Your task to perform on an android device: install app "Reddit" Image 0: 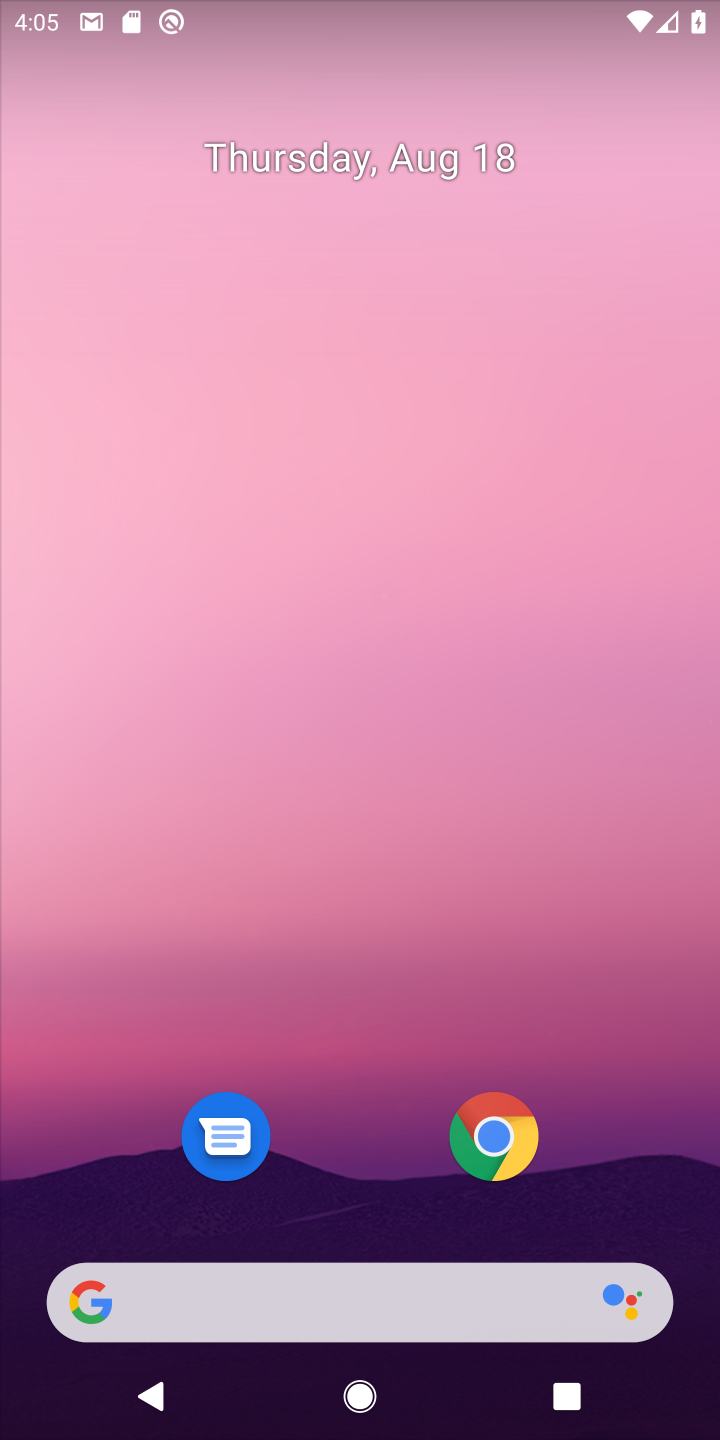
Step 0: drag from (363, 781) to (664, 1)
Your task to perform on an android device: install app "Reddit" Image 1: 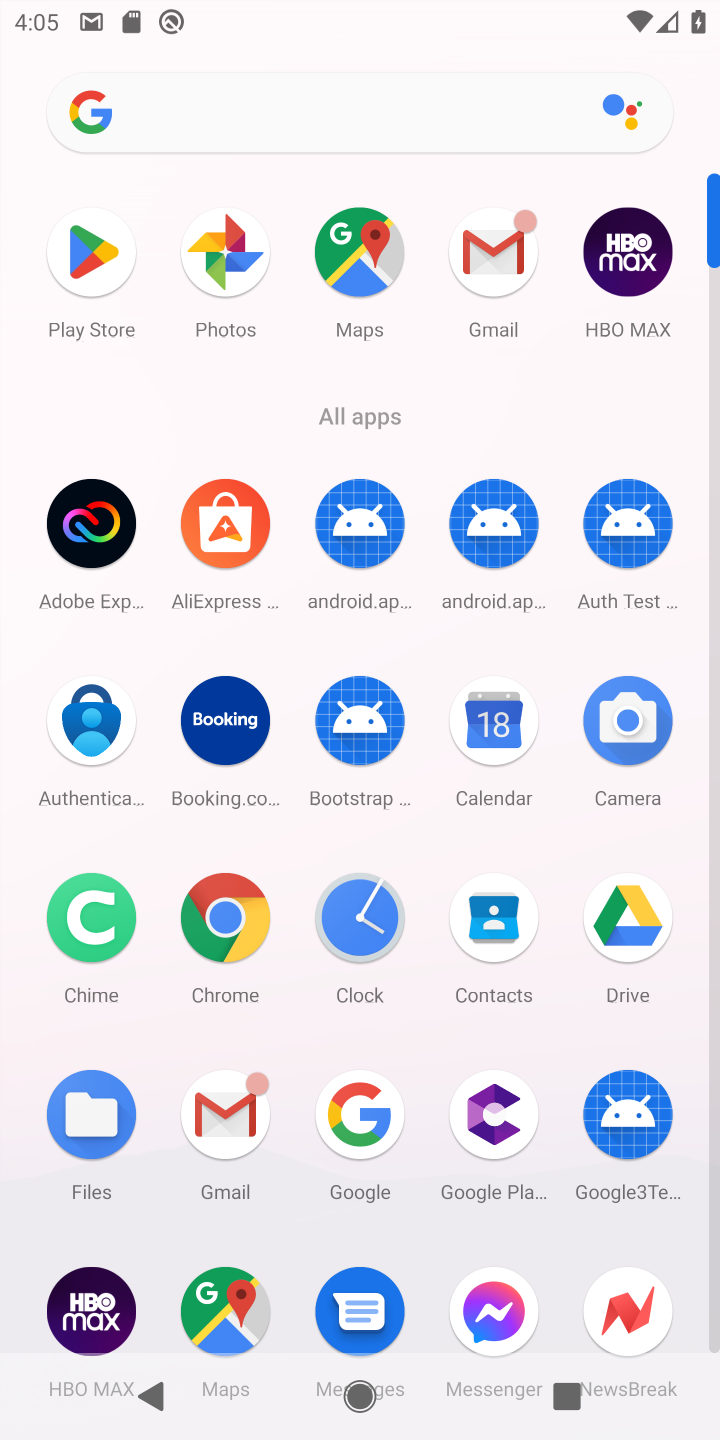
Step 1: click (85, 266)
Your task to perform on an android device: install app "Reddit" Image 2: 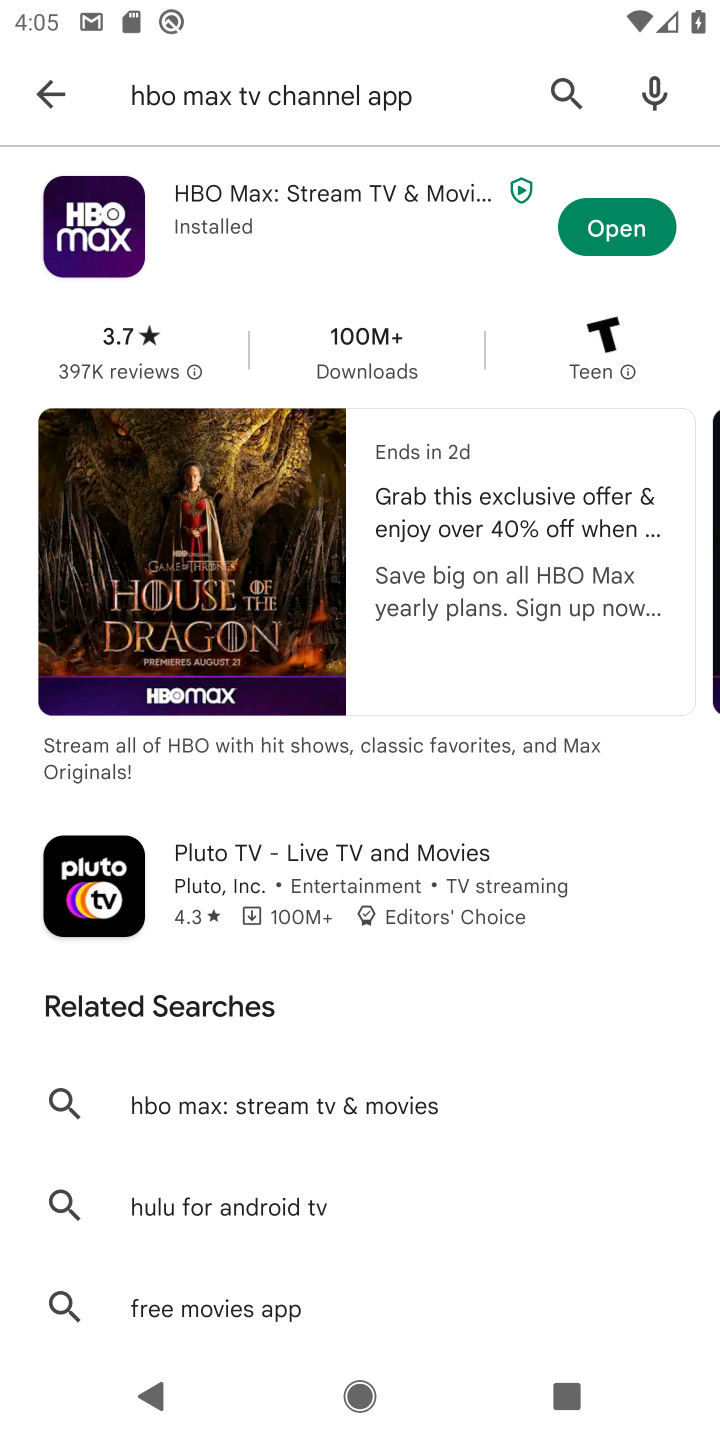
Step 2: click (218, 91)
Your task to perform on an android device: install app "Reddit" Image 3: 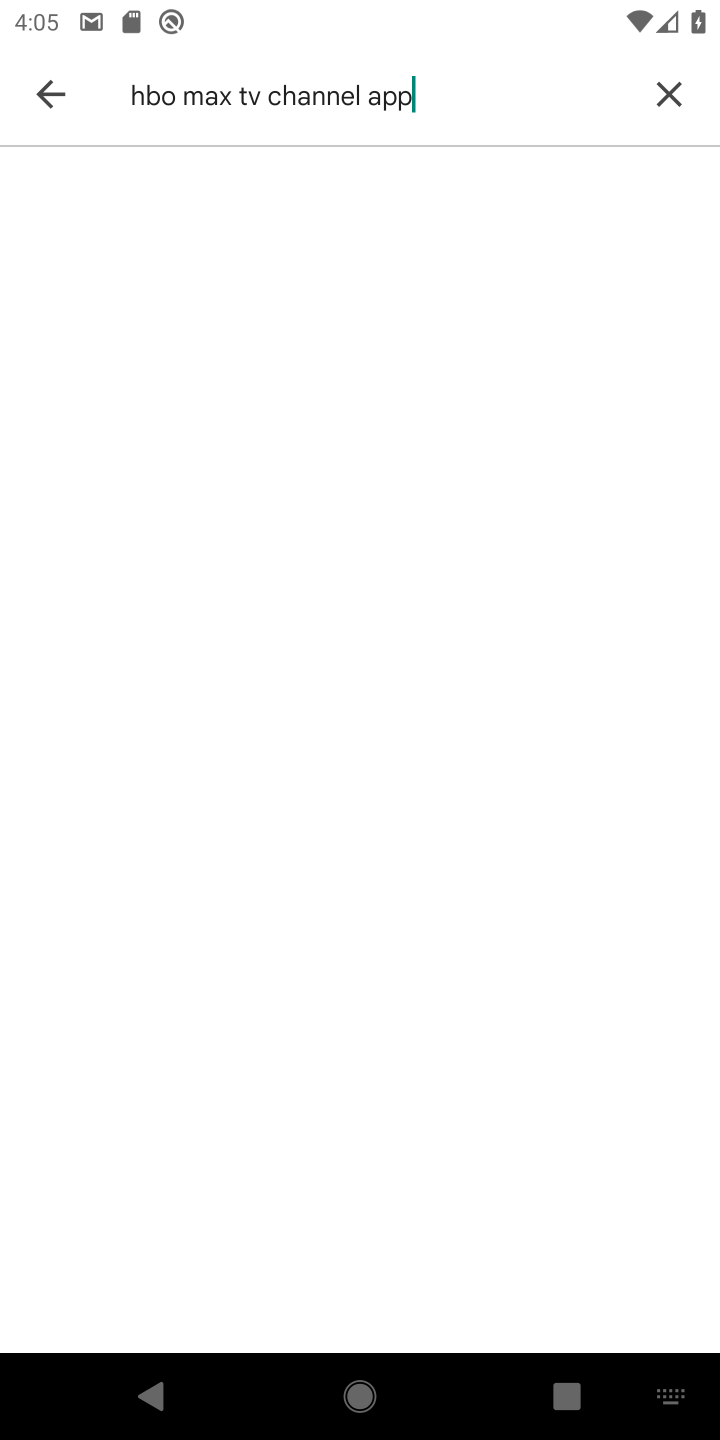
Step 3: click (666, 83)
Your task to perform on an android device: install app "Reddit" Image 4: 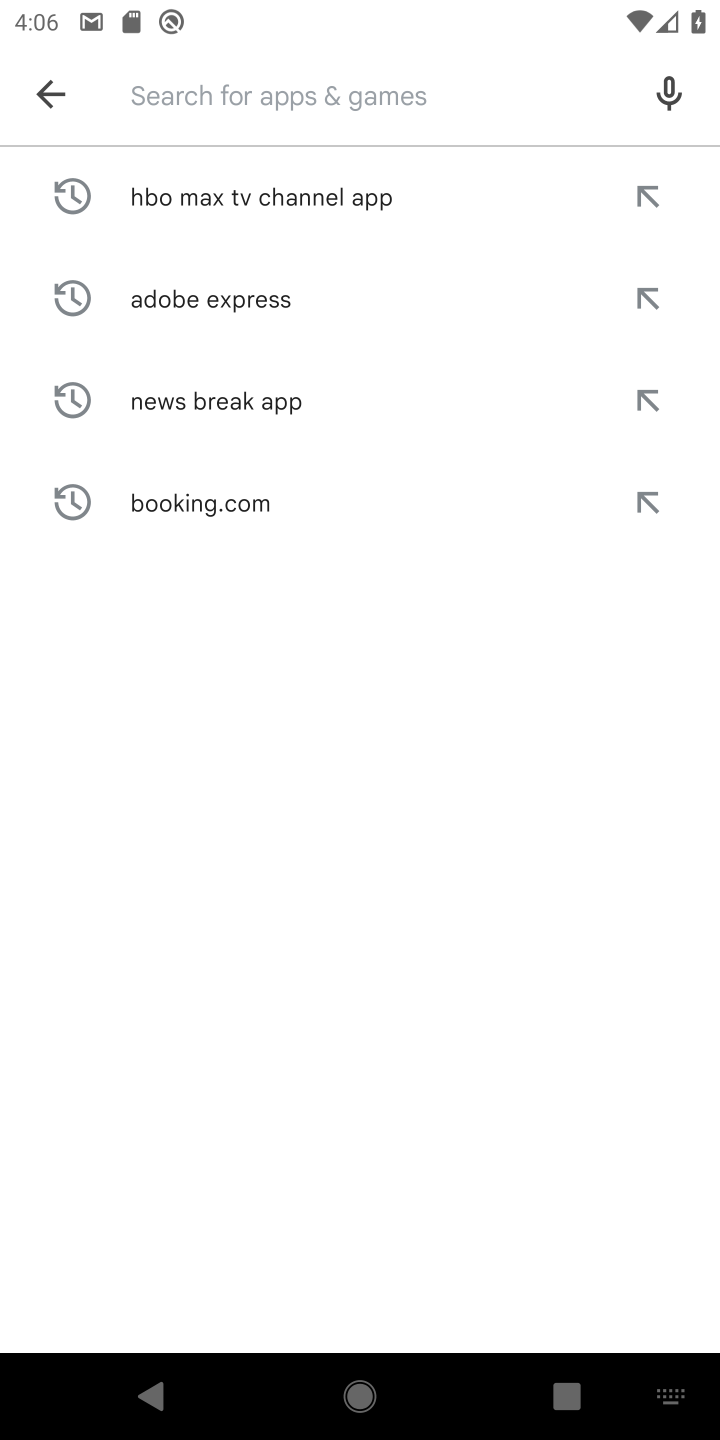
Step 4: type "Reddit"
Your task to perform on an android device: install app "Reddit" Image 5: 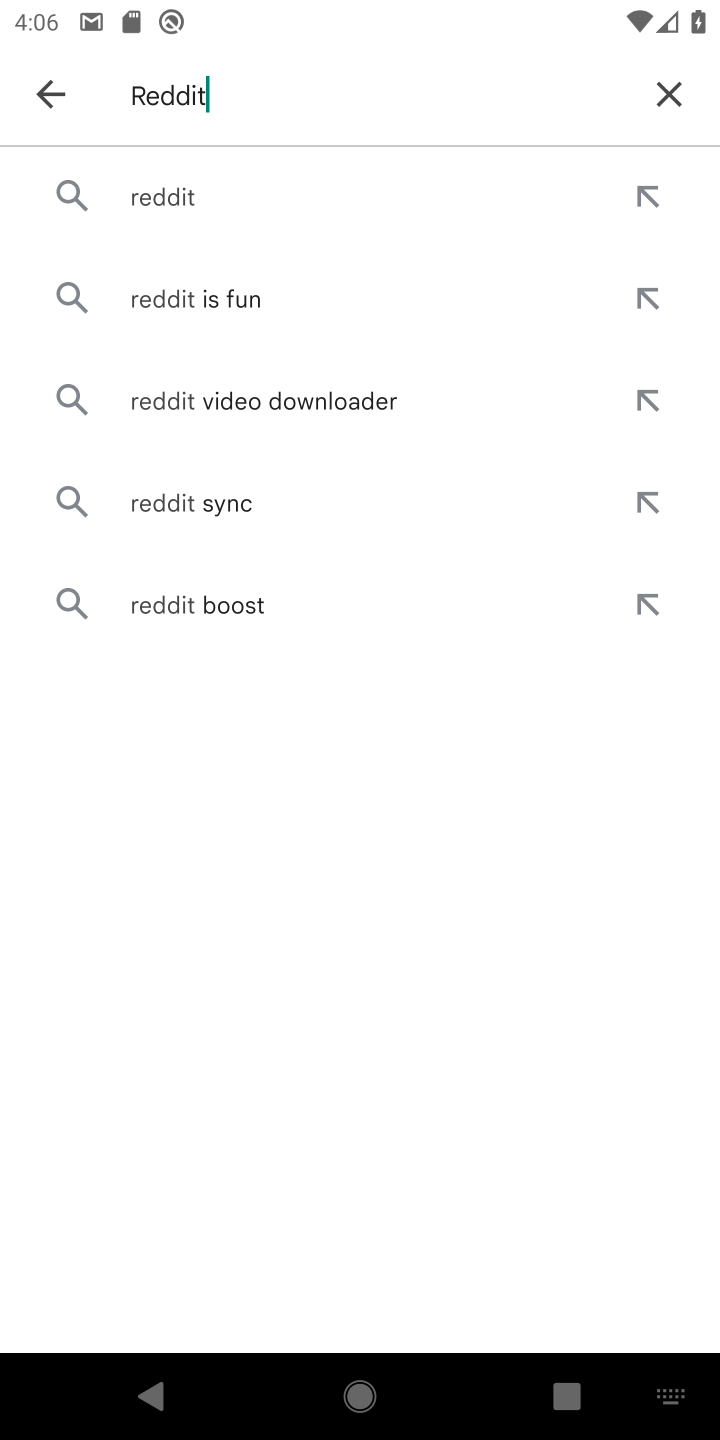
Step 5: click (184, 188)
Your task to perform on an android device: install app "Reddit" Image 6: 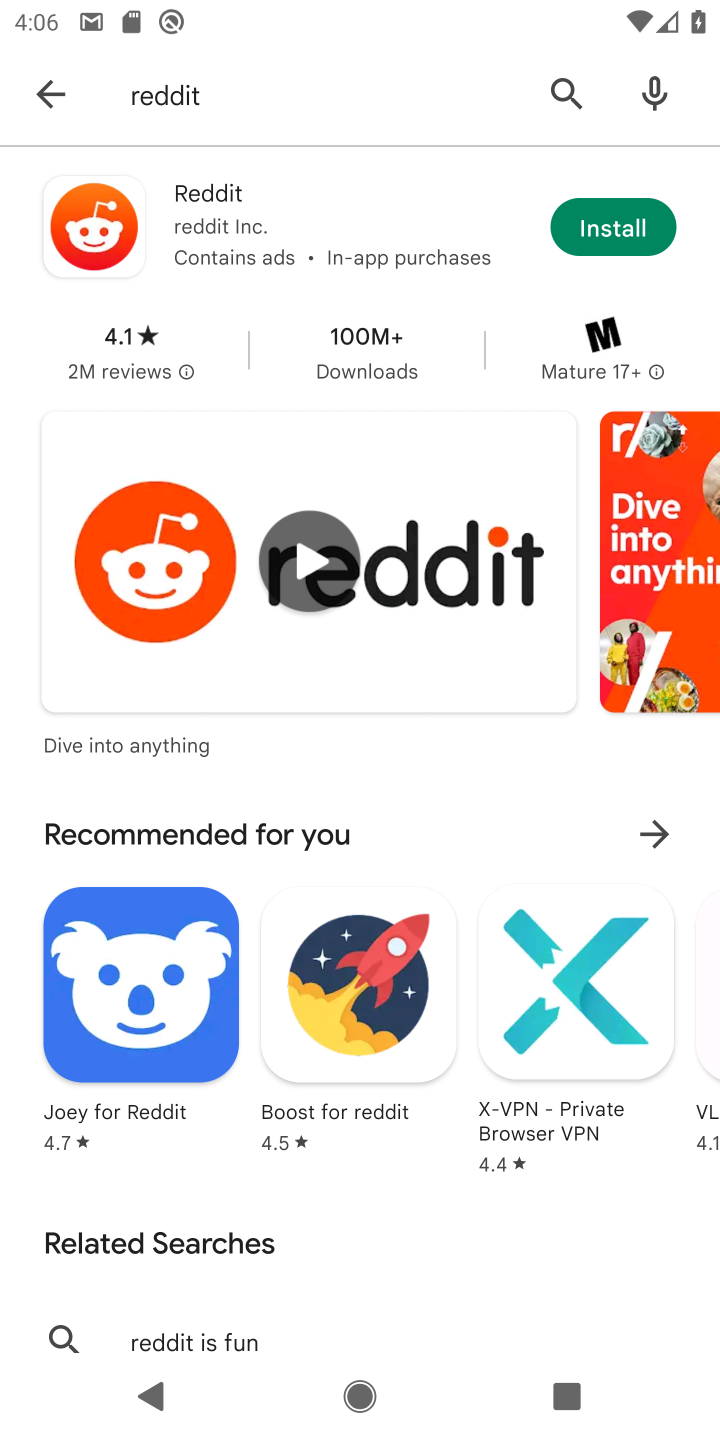
Step 6: click (600, 220)
Your task to perform on an android device: install app "Reddit" Image 7: 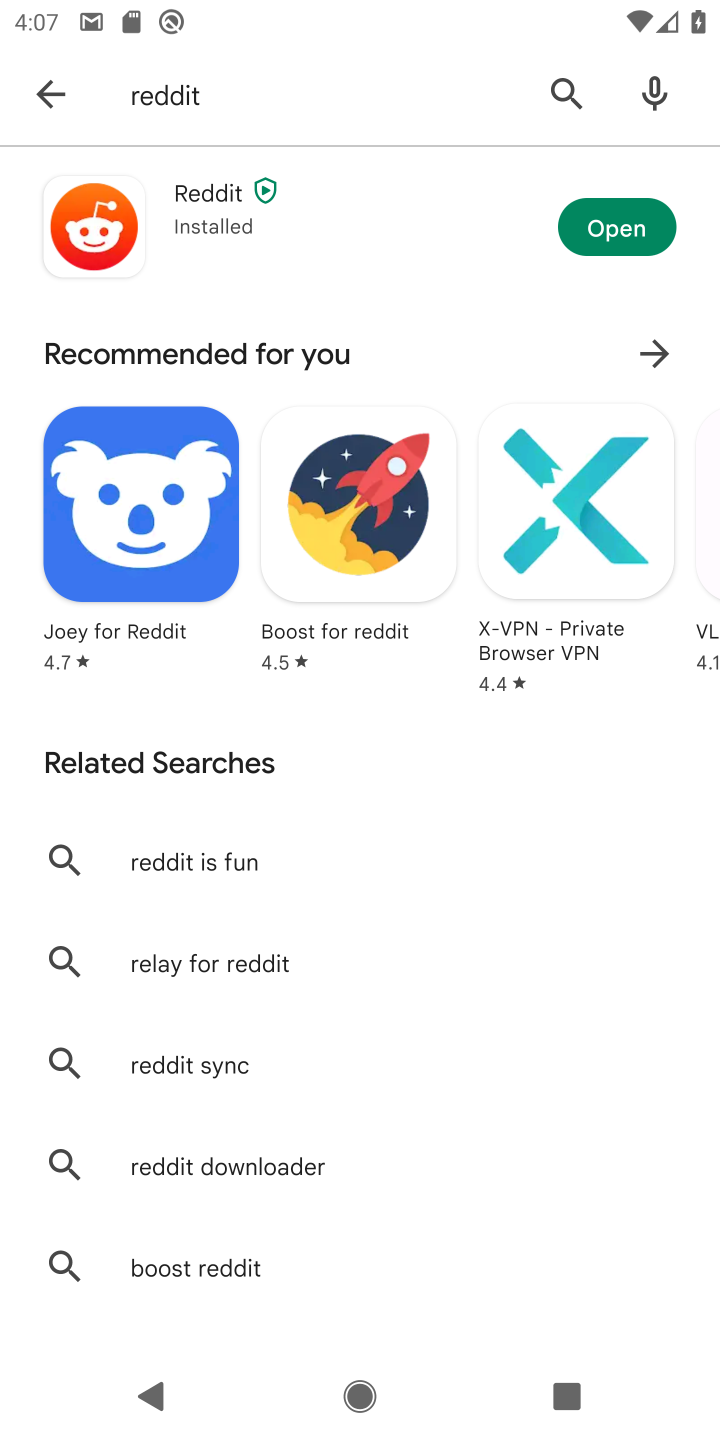
Step 7: task complete